Your task to perform on an android device: What's the news about the US dollar exchange rate? Image 0: 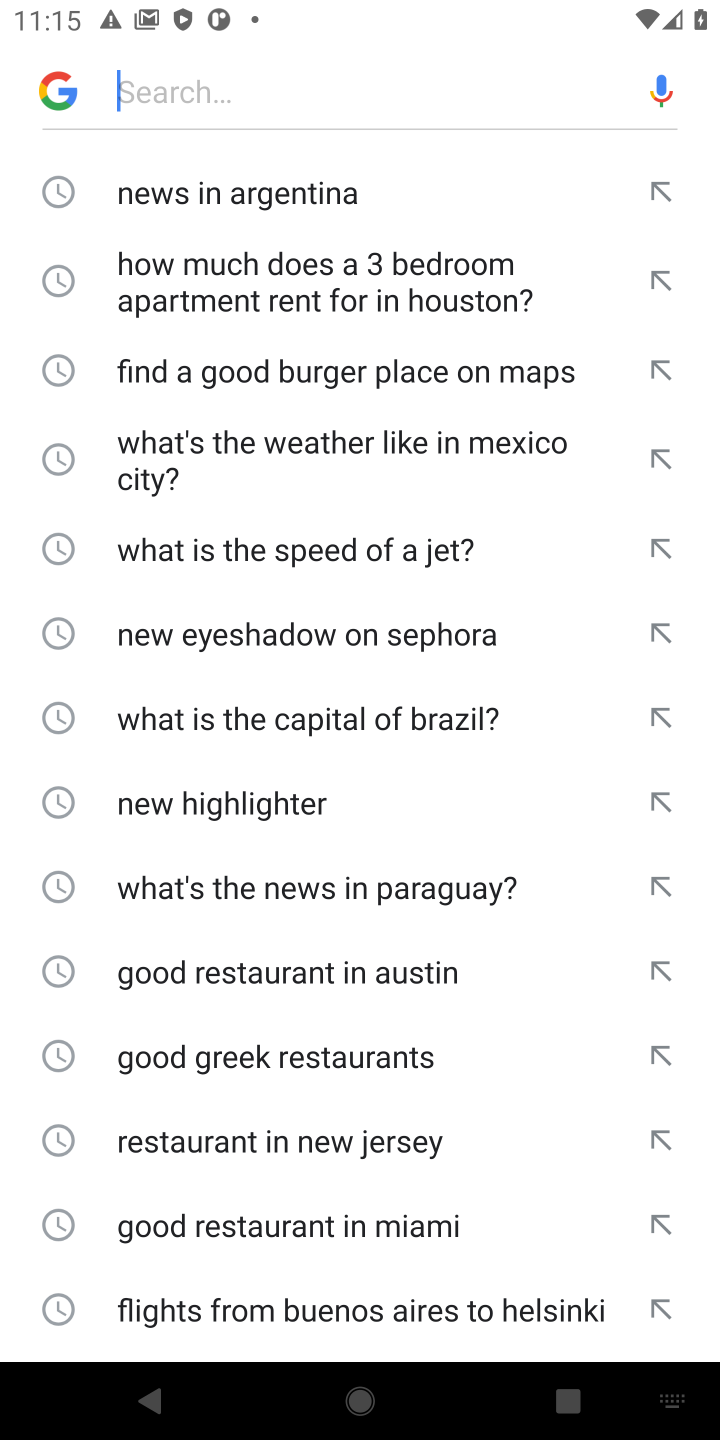
Step 0: type "What's the news about the US dollar exchange rate?"
Your task to perform on an android device: What's the news about the US dollar exchange rate? Image 1: 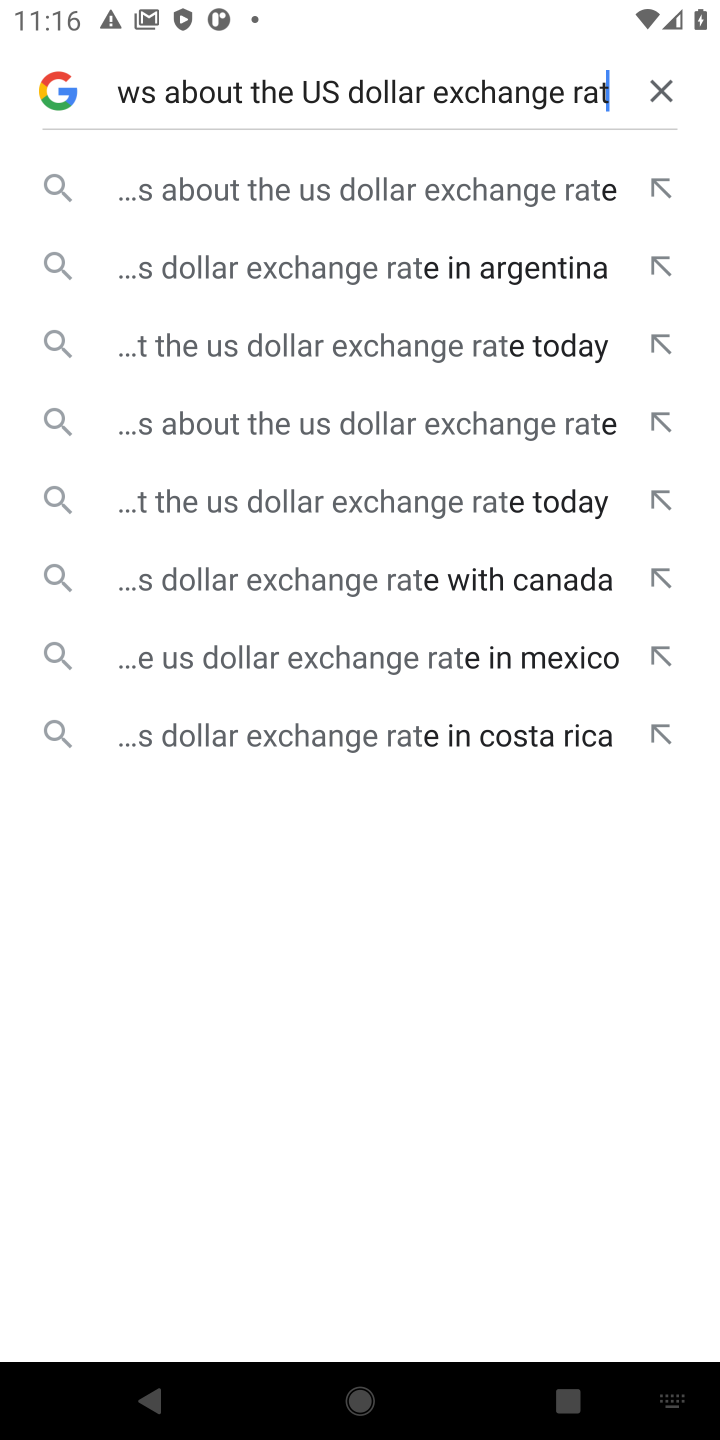
Step 1: press enter
Your task to perform on an android device: What's the news about the US dollar exchange rate? Image 2: 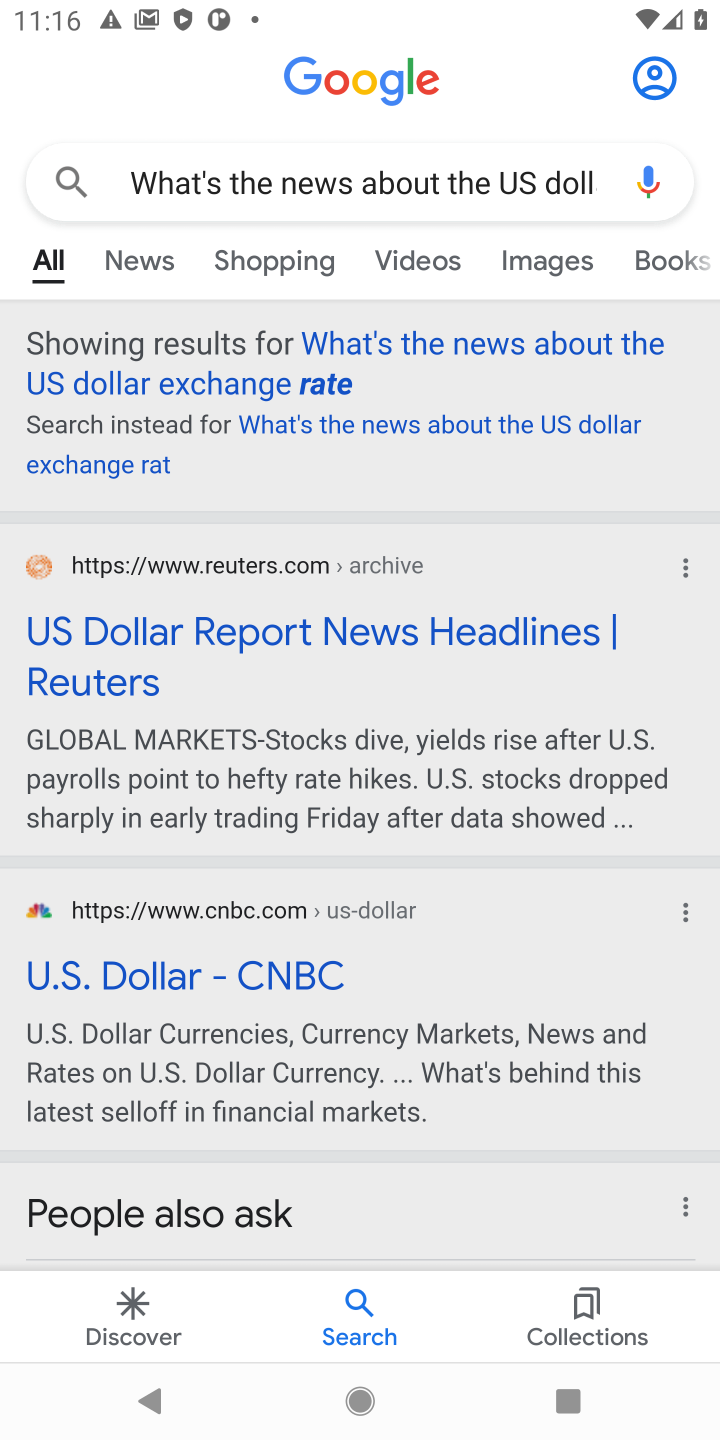
Step 2: click (142, 245)
Your task to perform on an android device: What's the news about the US dollar exchange rate? Image 3: 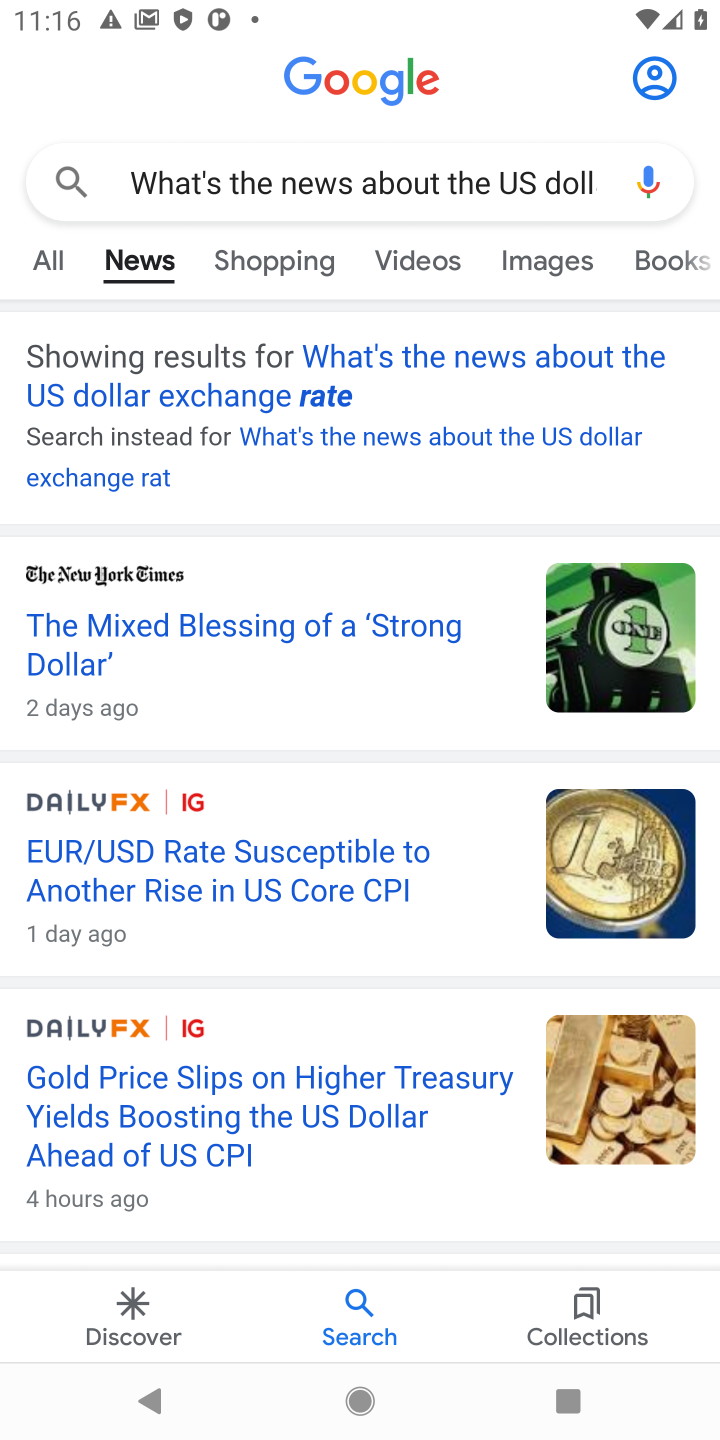
Step 3: click (478, 363)
Your task to perform on an android device: What's the news about the US dollar exchange rate? Image 4: 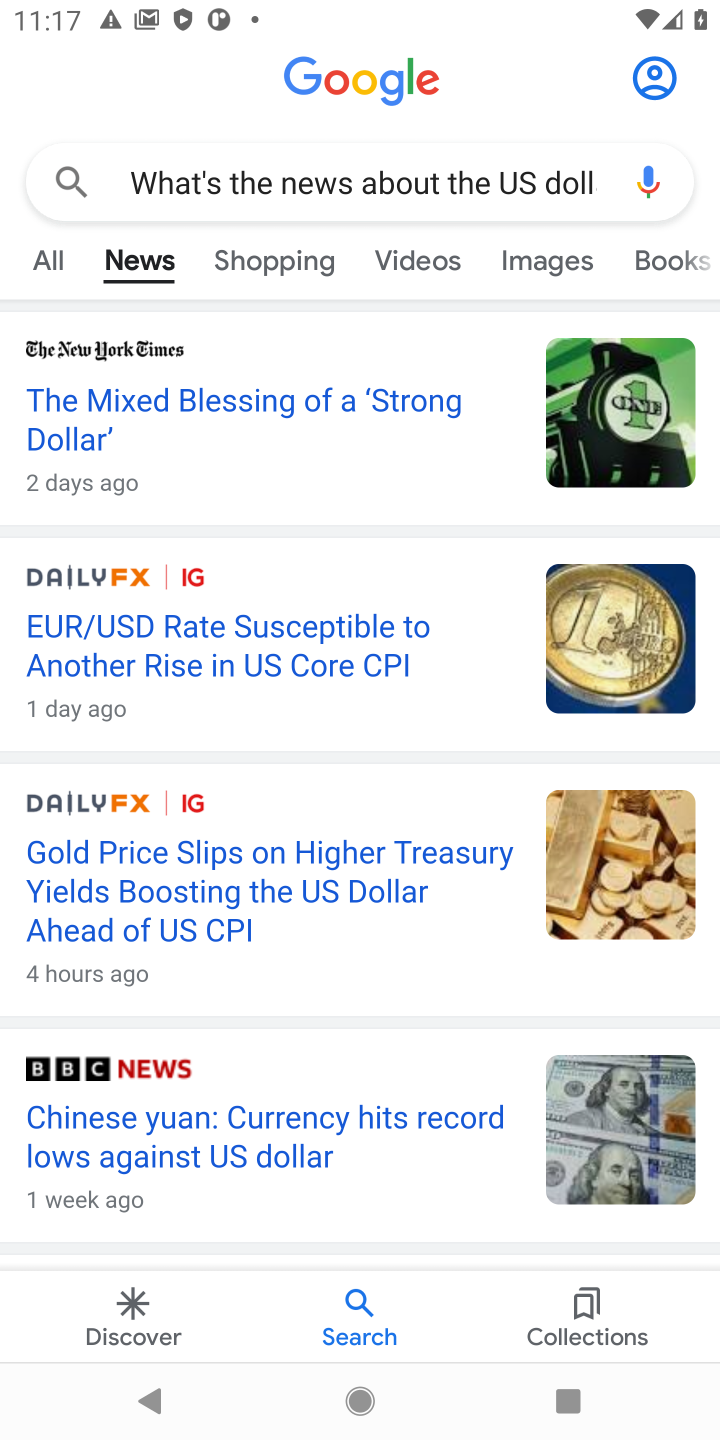
Step 4: task complete